Your task to perform on an android device: turn off notifications settings in the gmail app Image 0: 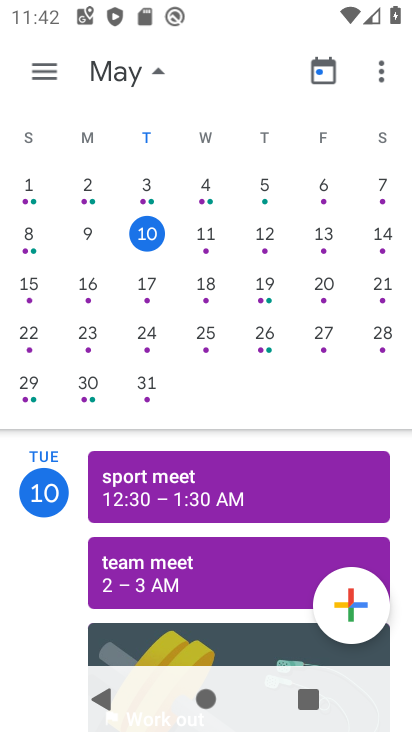
Step 0: press home button
Your task to perform on an android device: turn off notifications settings in the gmail app Image 1: 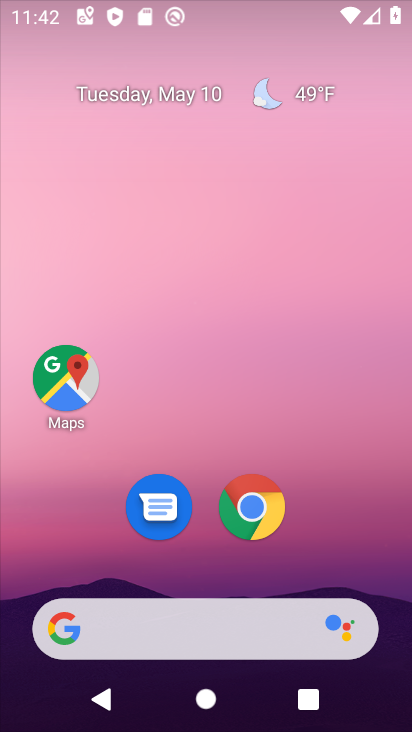
Step 1: drag from (202, 509) to (146, 7)
Your task to perform on an android device: turn off notifications settings in the gmail app Image 2: 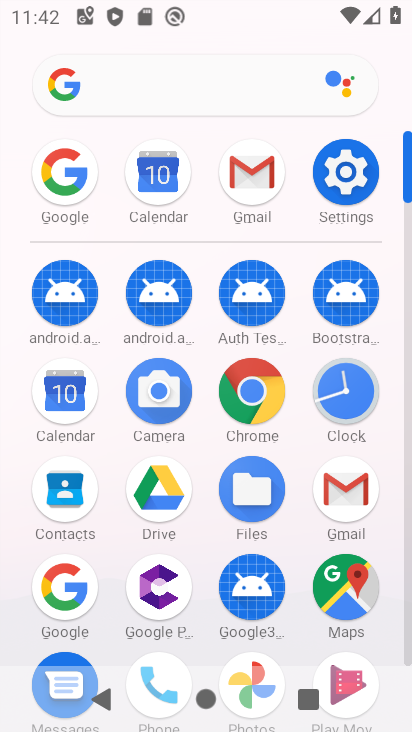
Step 2: click (249, 161)
Your task to perform on an android device: turn off notifications settings in the gmail app Image 3: 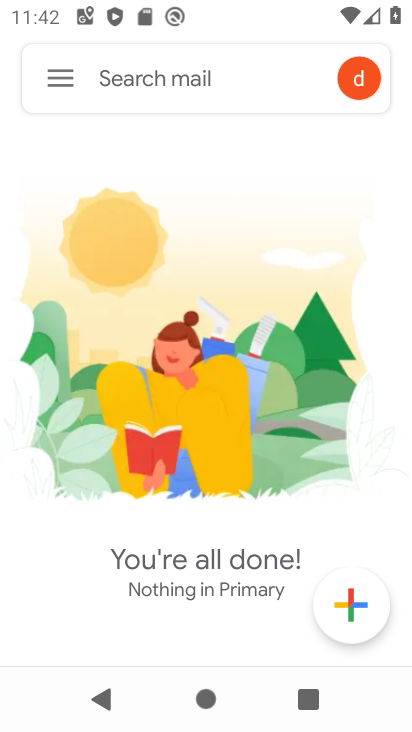
Step 3: click (39, 80)
Your task to perform on an android device: turn off notifications settings in the gmail app Image 4: 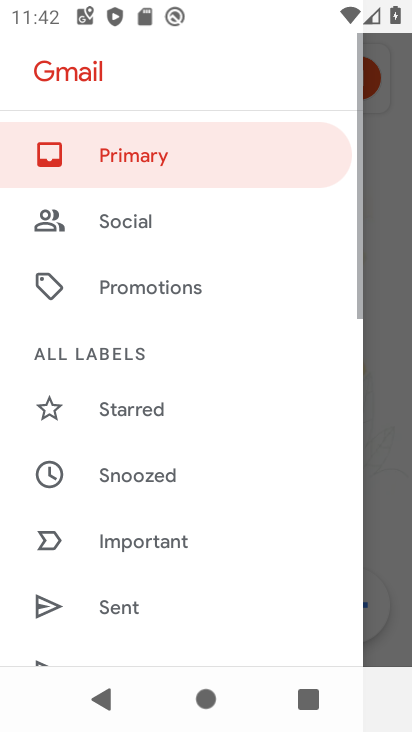
Step 4: drag from (193, 542) to (172, 119)
Your task to perform on an android device: turn off notifications settings in the gmail app Image 5: 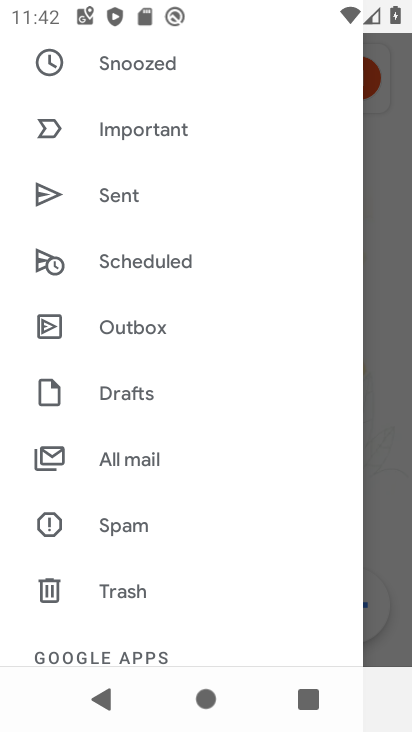
Step 5: drag from (175, 598) to (143, 158)
Your task to perform on an android device: turn off notifications settings in the gmail app Image 6: 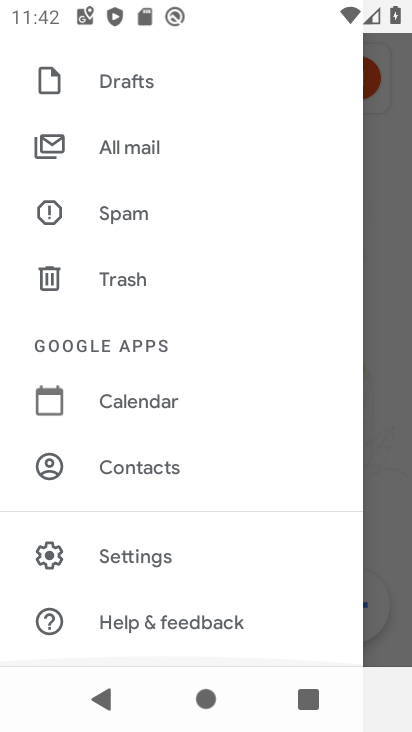
Step 6: click (84, 565)
Your task to perform on an android device: turn off notifications settings in the gmail app Image 7: 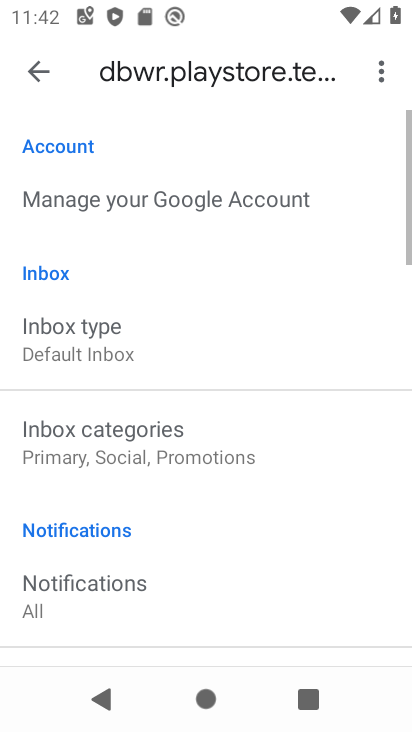
Step 7: drag from (193, 530) to (176, 258)
Your task to perform on an android device: turn off notifications settings in the gmail app Image 8: 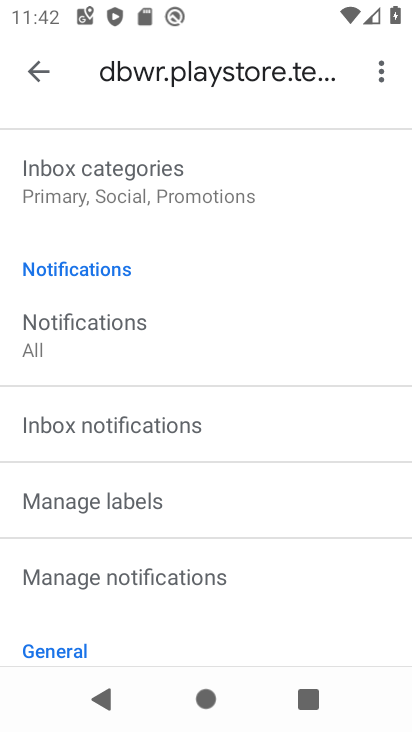
Step 8: click (88, 336)
Your task to perform on an android device: turn off notifications settings in the gmail app Image 9: 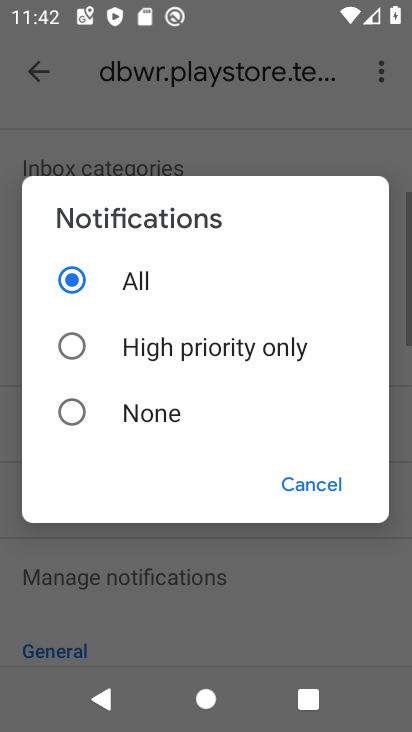
Step 9: click (76, 400)
Your task to perform on an android device: turn off notifications settings in the gmail app Image 10: 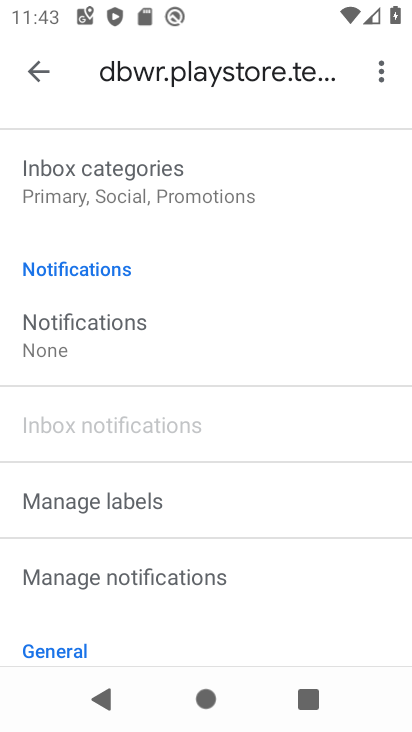
Step 10: task complete